Your task to perform on an android device: Show the shopping cart on costco. Add "razer blade" to the cart on costco Image 0: 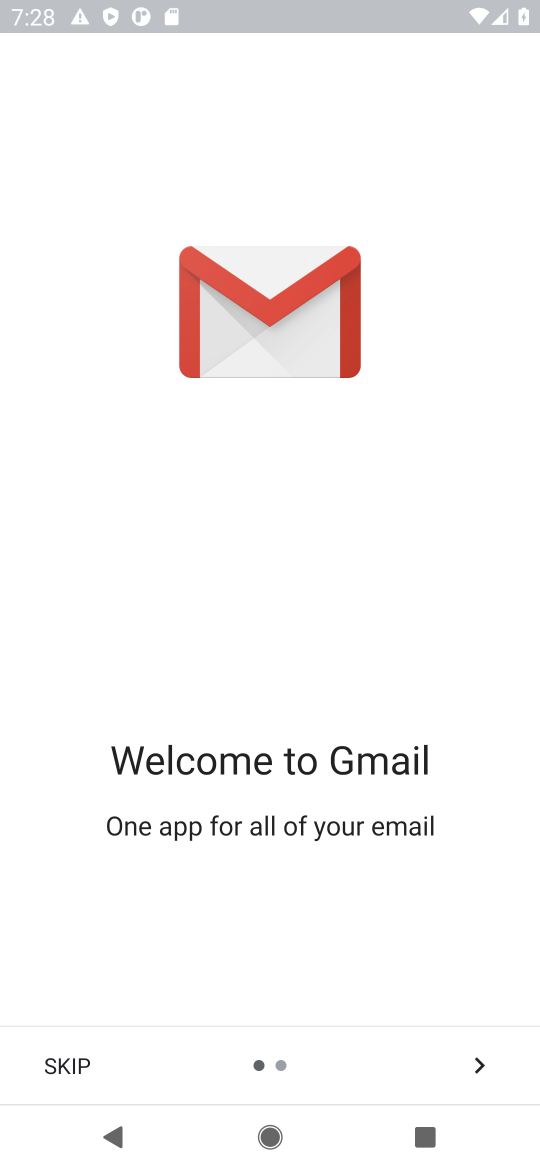
Step 0: press home button
Your task to perform on an android device: Show the shopping cart on costco. Add "razer blade" to the cart on costco Image 1: 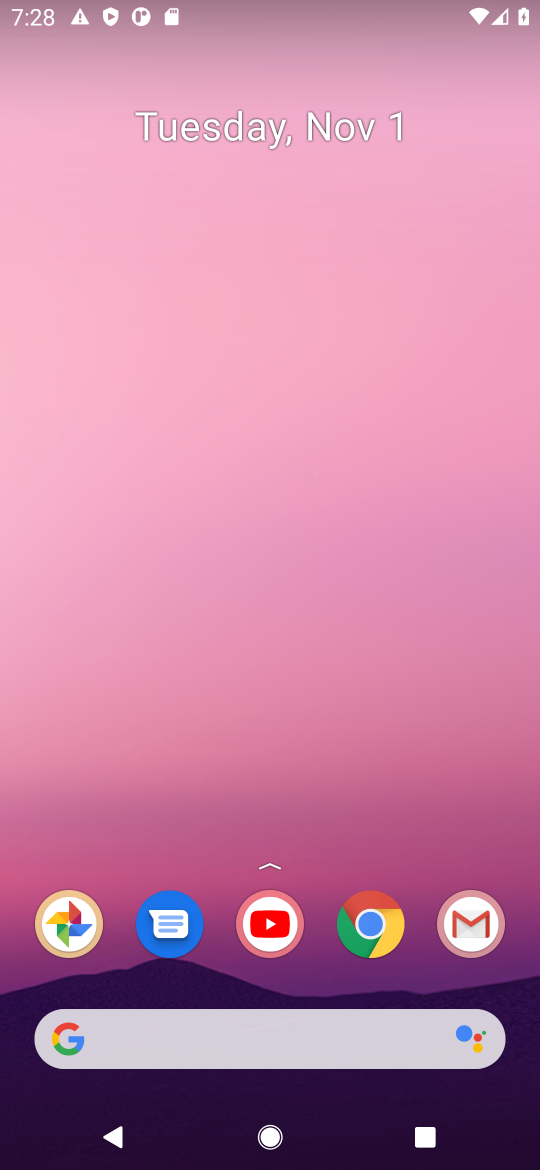
Step 1: click (98, 1034)
Your task to perform on an android device: Show the shopping cart on costco. Add "razer blade" to the cart on costco Image 2: 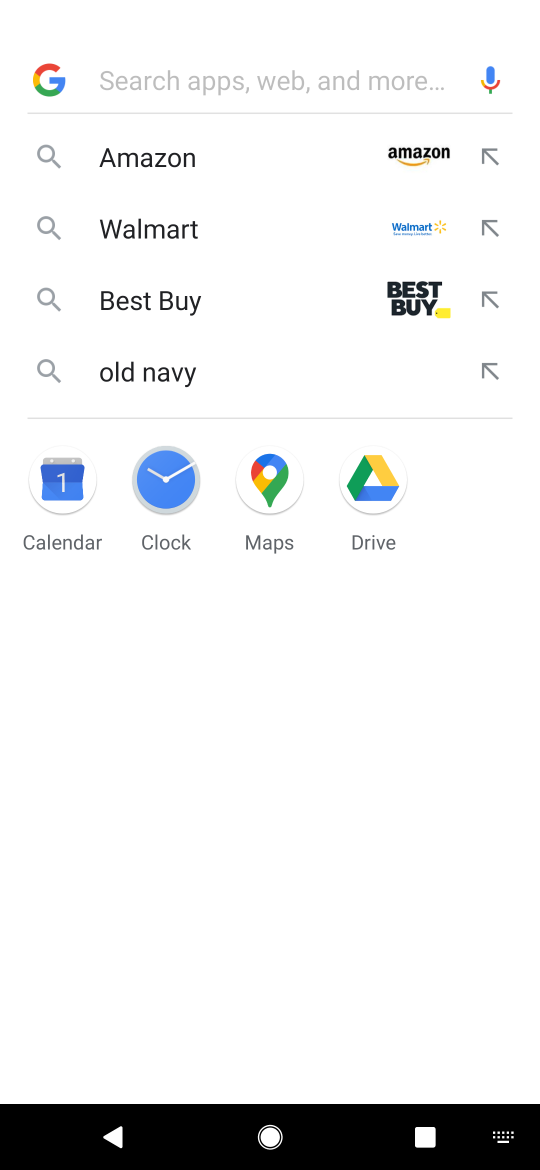
Step 2: type "costco"
Your task to perform on an android device: Show the shopping cart on costco. Add "razer blade" to the cart on costco Image 3: 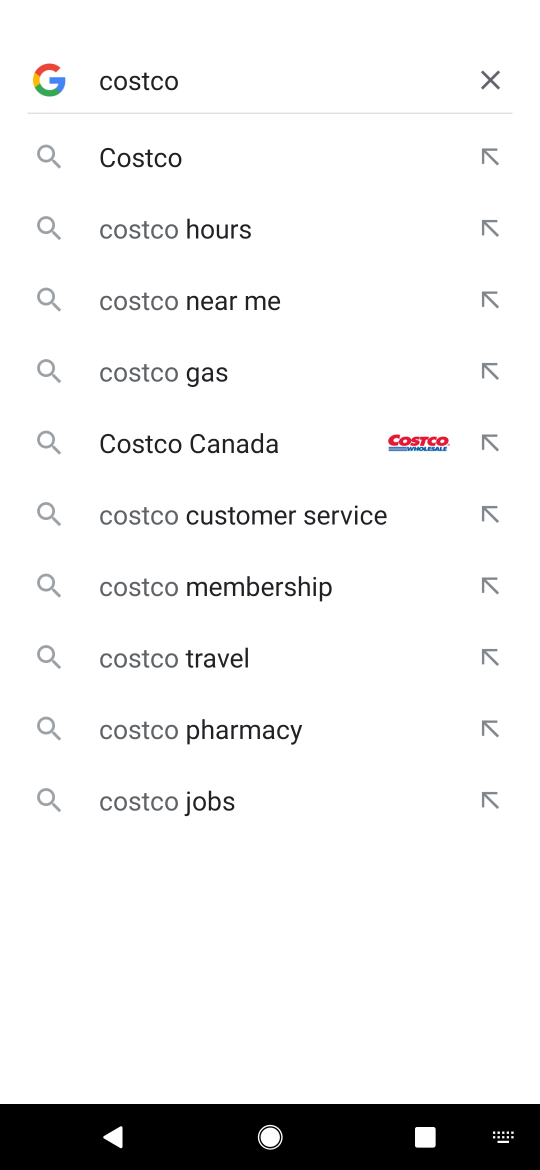
Step 3: press enter
Your task to perform on an android device: Show the shopping cart on costco. Add "razer blade" to the cart on costco Image 4: 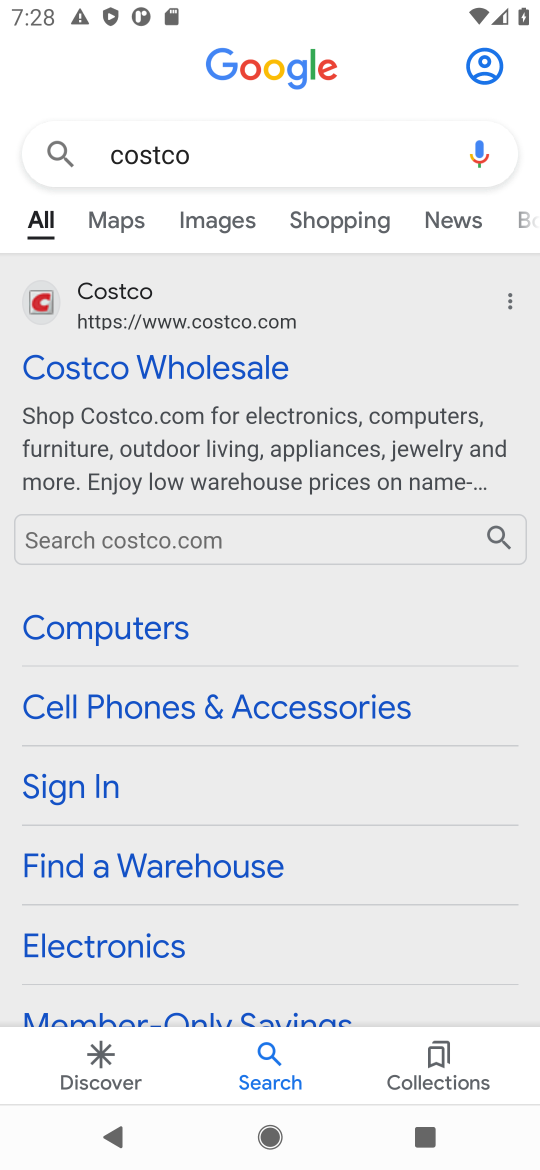
Step 4: click (200, 367)
Your task to perform on an android device: Show the shopping cart on costco. Add "razer blade" to the cart on costco Image 5: 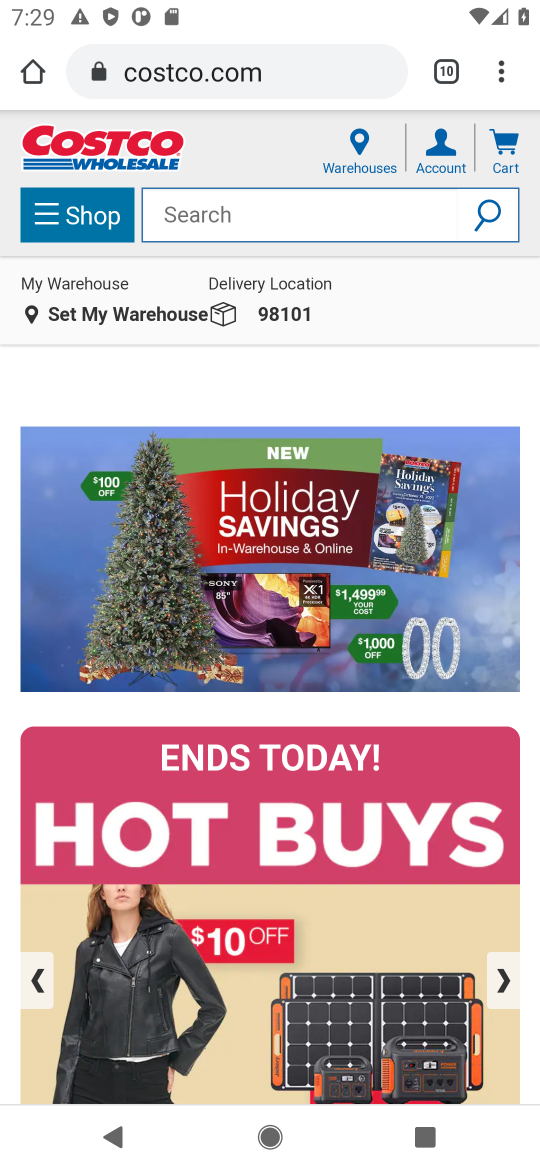
Step 5: click (508, 157)
Your task to perform on an android device: Show the shopping cart on costco. Add "razer blade" to the cart on costco Image 6: 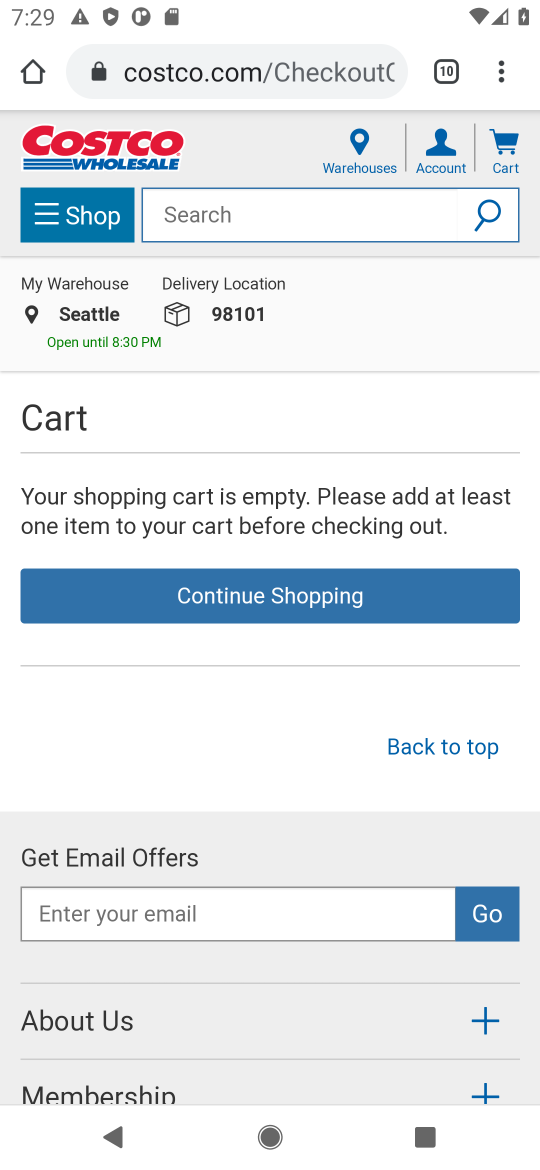
Step 6: click (197, 212)
Your task to perform on an android device: Show the shopping cart on costco. Add "razer blade" to the cart on costco Image 7: 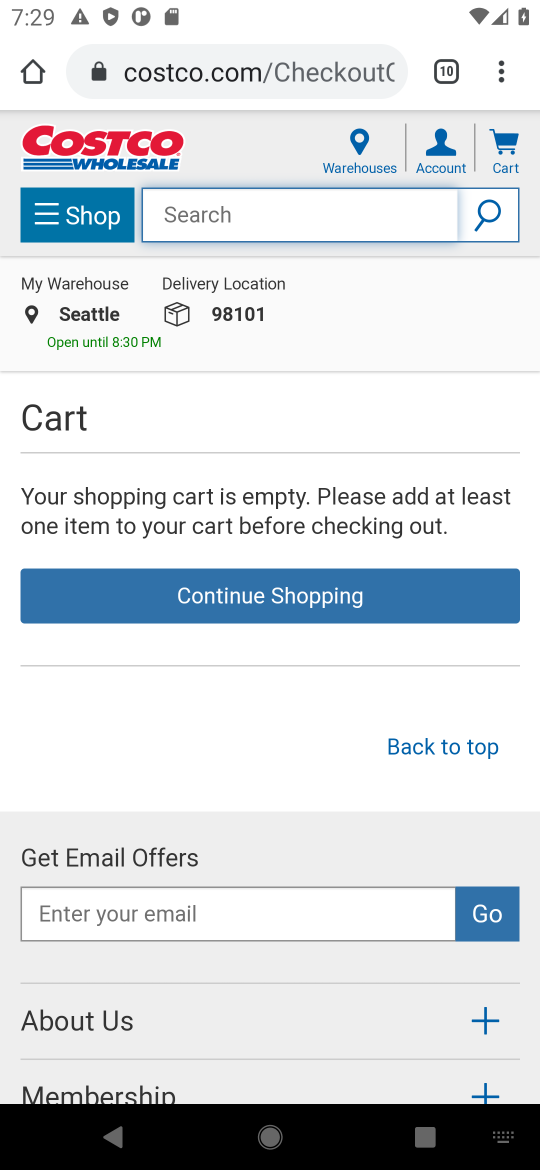
Step 7: type "razer blade"
Your task to perform on an android device: Show the shopping cart on costco. Add "razer blade" to the cart on costco Image 8: 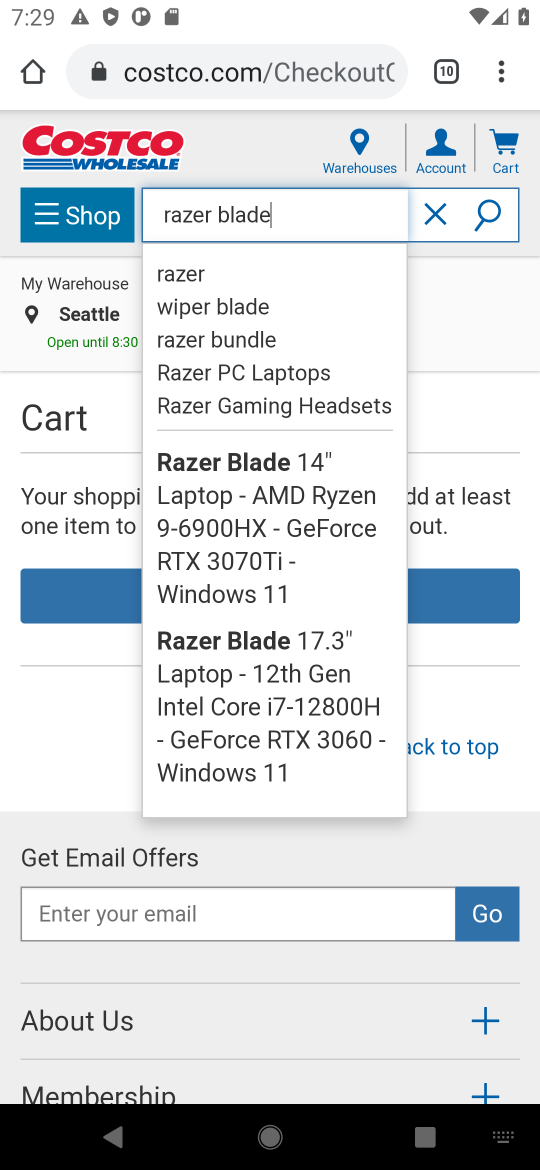
Step 8: click (491, 208)
Your task to perform on an android device: Show the shopping cart on costco. Add "razer blade" to the cart on costco Image 9: 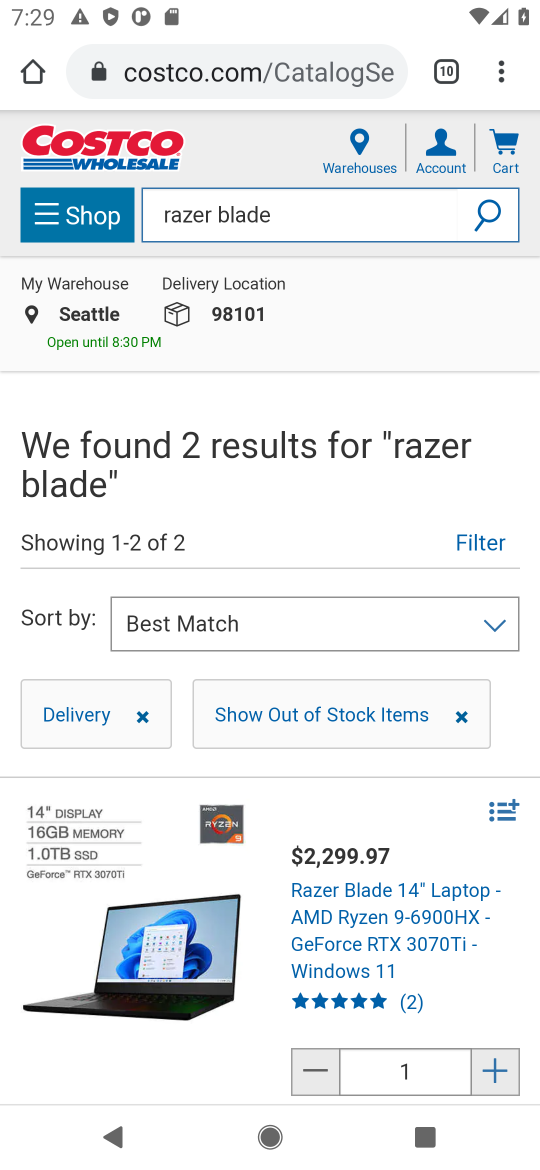
Step 9: drag from (387, 925) to (428, 574)
Your task to perform on an android device: Show the shopping cart on costco. Add "razer blade" to the cart on costco Image 10: 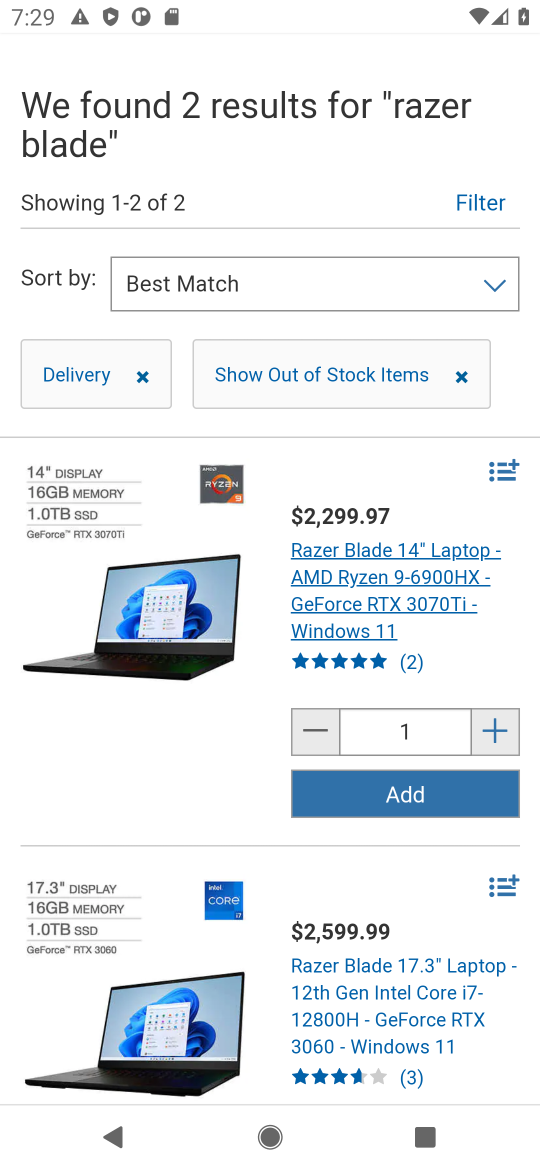
Step 10: click (407, 789)
Your task to perform on an android device: Show the shopping cart on costco. Add "razer blade" to the cart on costco Image 11: 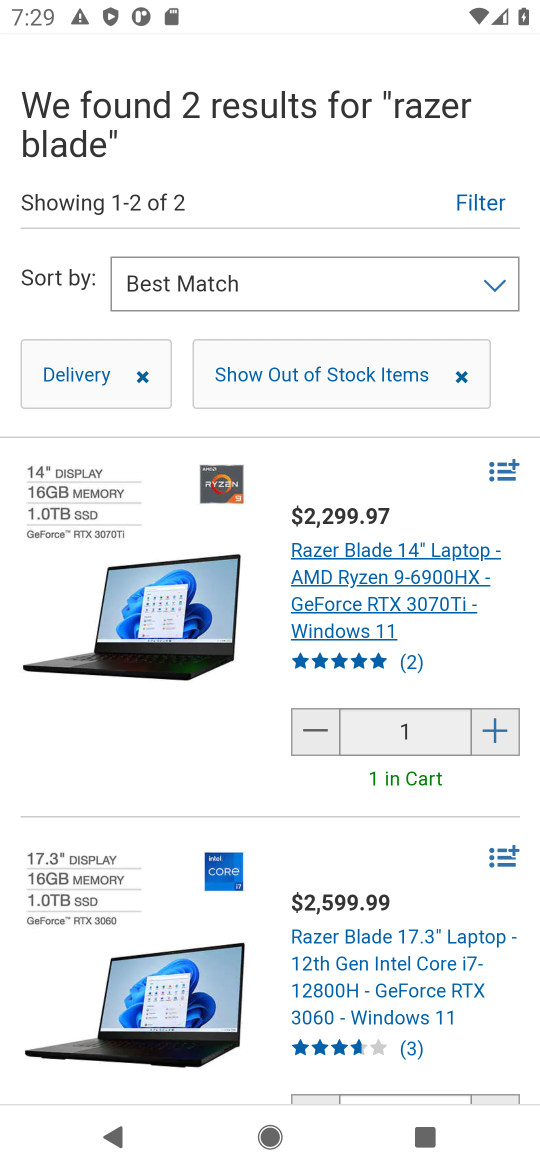
Step 11: task complete